Your task to perform on an android device: Search for Mexican restaurants on Maps Image 0: 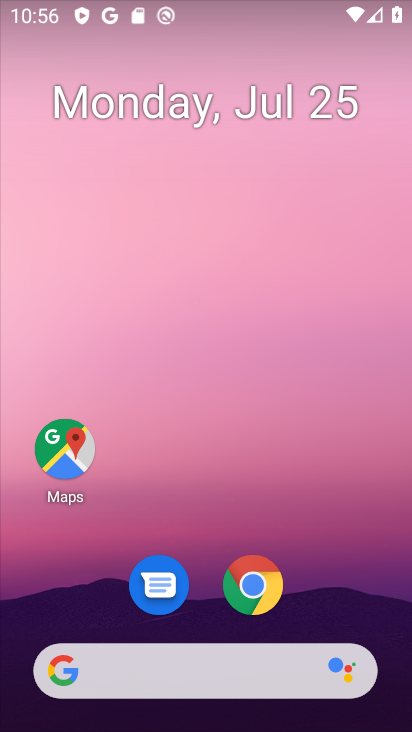
Step 0: click (53, 441)
Your task to perform on an android device: Search for Mexican restaurants on Maps Image 1: 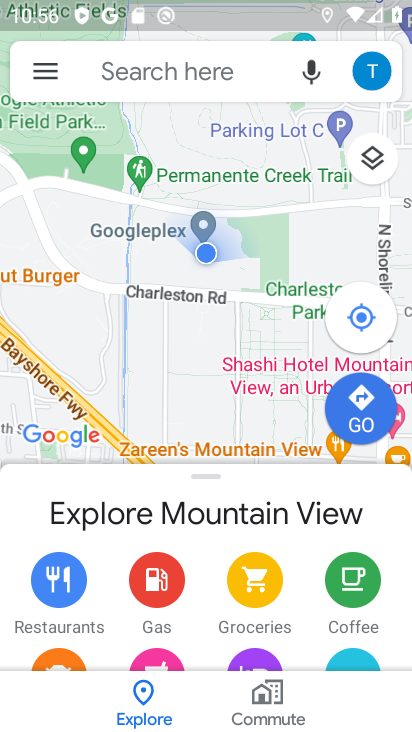
Step 1: click (195, 66)
Your task to perform on an android device: Search for Mexican restaurants on Maps Image 2: 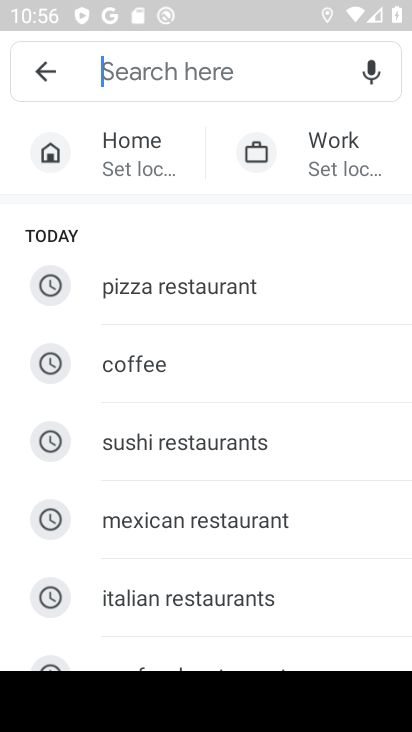
Step 2: click (222, 517)
Your task to perform on an android device: Search for Mexican restaurants on Maps Image 3: 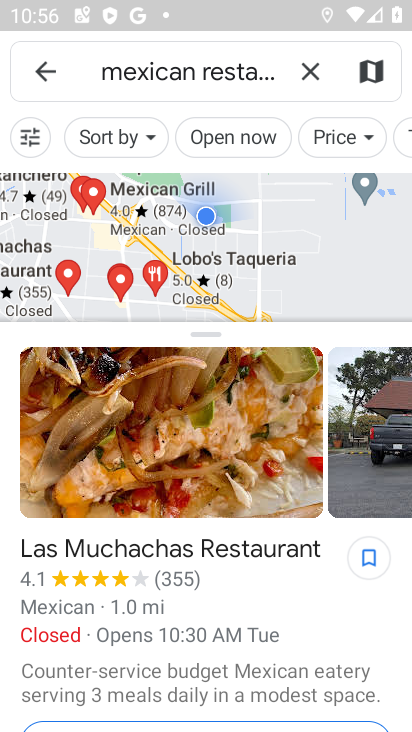
Step 3: task complete